Your task to perform on an android device: Search for the best burger restaurants on Maps Image 0: 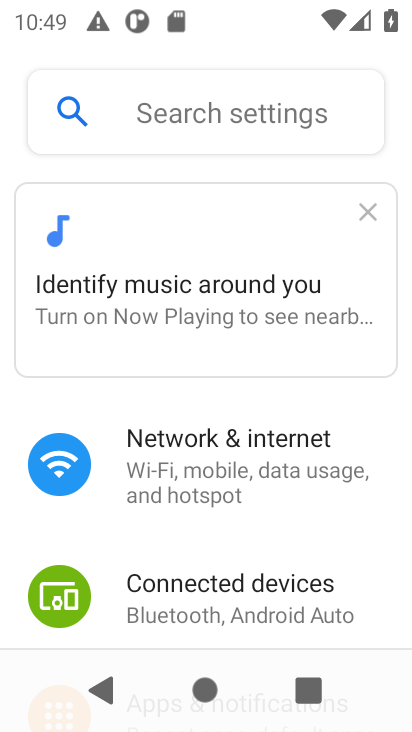
Step 0: press home button
Your task to perform on an android device: Search for the best burger restaurants on Maps Image 1: 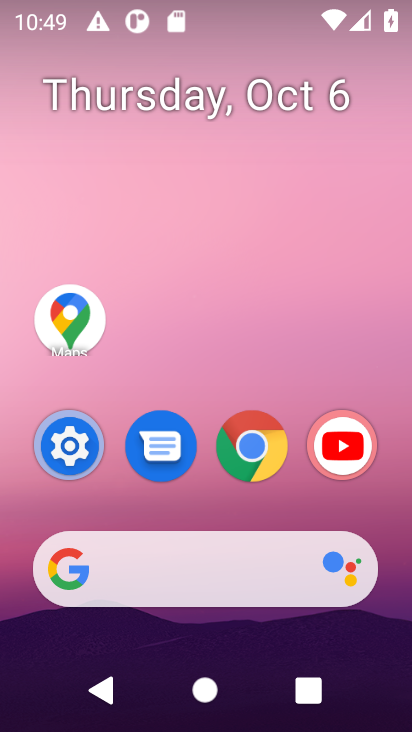
Step 1: drag from (139, 623) to (154, 259)
Your task to perform on an android device: Search for the best burger restaurants on Maps Image 2: 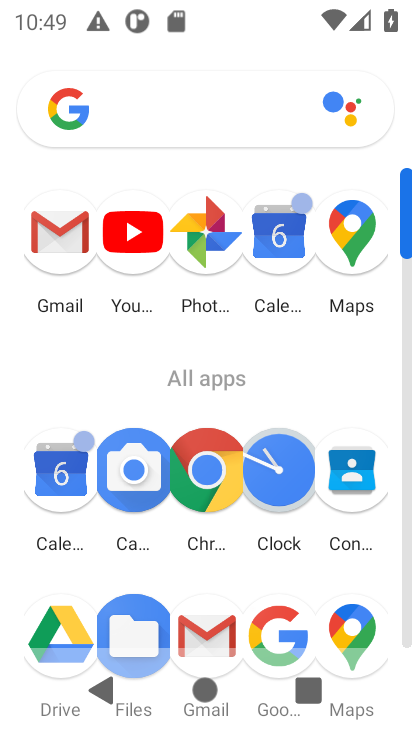
Step 2: drag from (205, 610) to (265, 228)
Your task to perform on an android device: Search for the best burger restaurants on Maps Image 3: 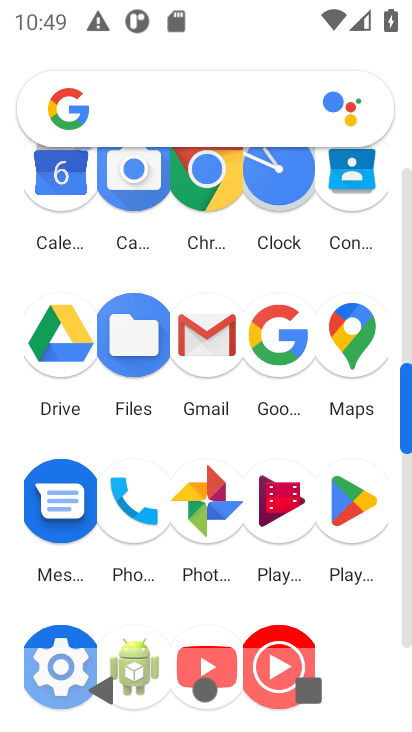
Step 3: click (288, 312)
Your task to perform on an android device: Search for the best burger restaurants on Maps Image 4: 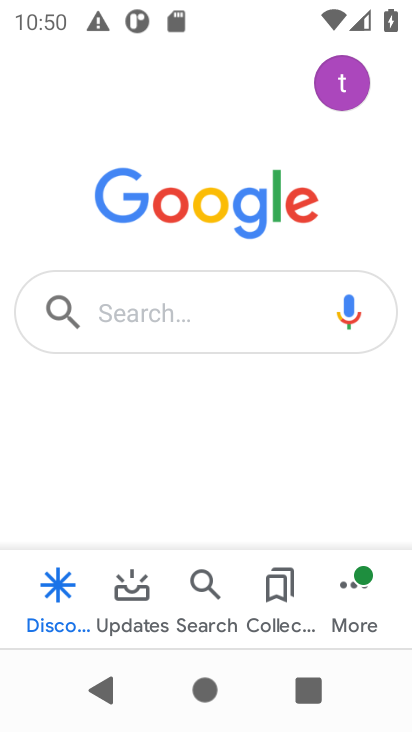
Step 4: press home button
Your task to perform on an android device: Search for the best burger restaurants on Maps Image 5: 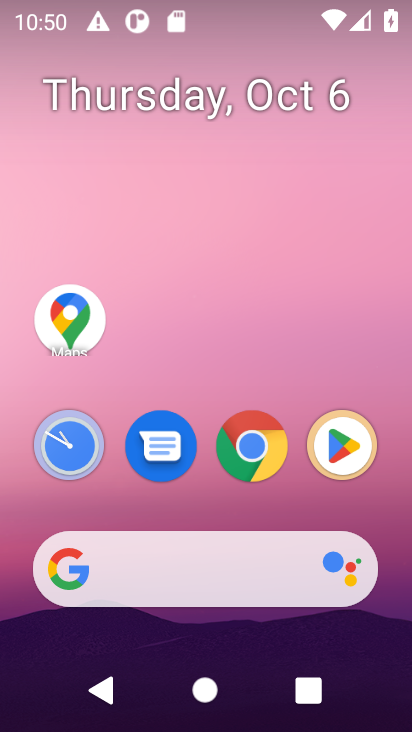
Step 5: drag from (235, 513) to (236, 412)
Your task to perform on an android device: Search for the best burger restaurants on Maps Image 6: 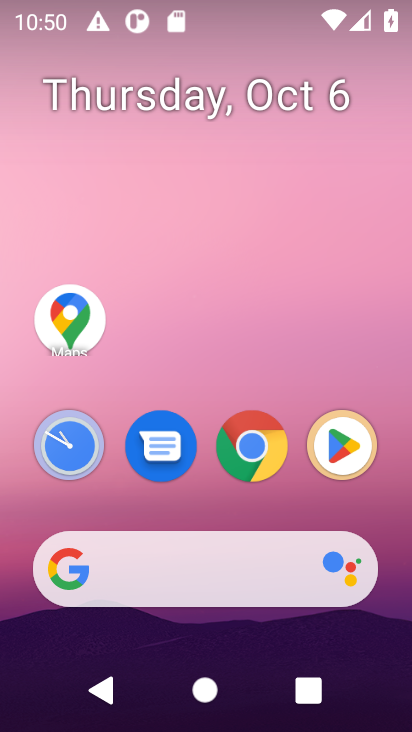
Step 6: click (52, 326)
Your task to perform on an android device: Search for the best burger restaurants on Maps Image 7: 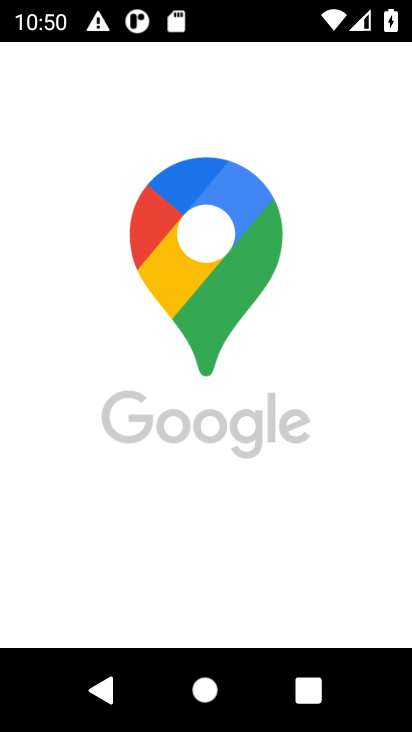
Step 7: click (217, 548)
Your task to perform on an android device: Search for the best burger restaurants on Maps Image 8: 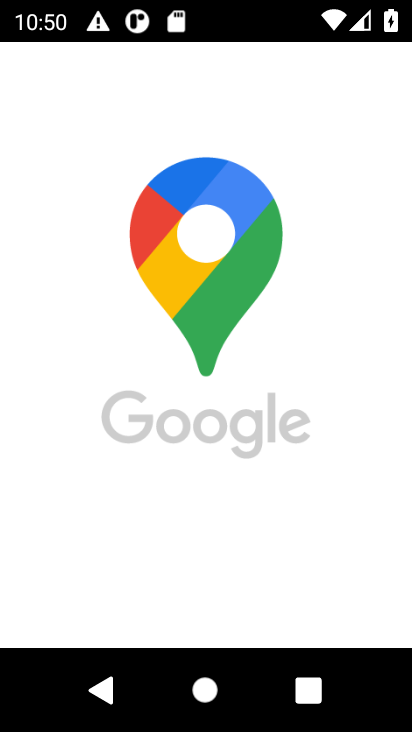
Step 8: click (221, 532)
Your task to perform on an android device: Search for the best burger restaurants on Maps Image 9: 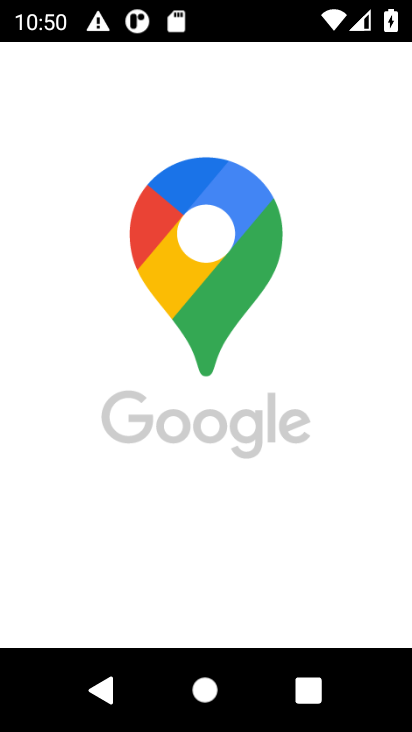
Step 9: click (271, 495)
Your task to perform on an android device: Search for the best burger restaurants on Maps Image 10: 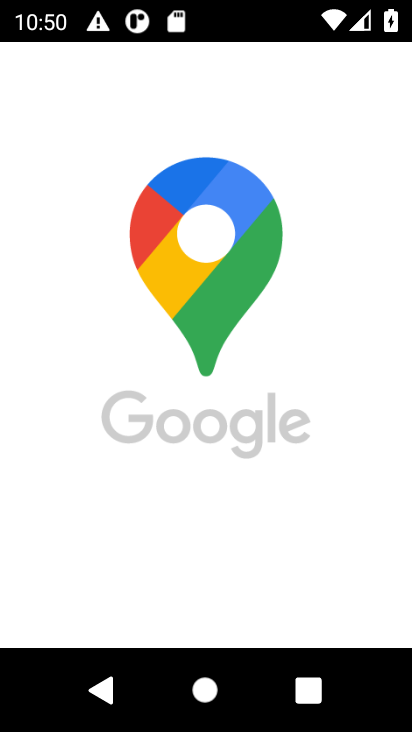
Step 10: click (287, 491)
Your task to perform on an android device: Search for the best burger restaurants on Maps Image 11: 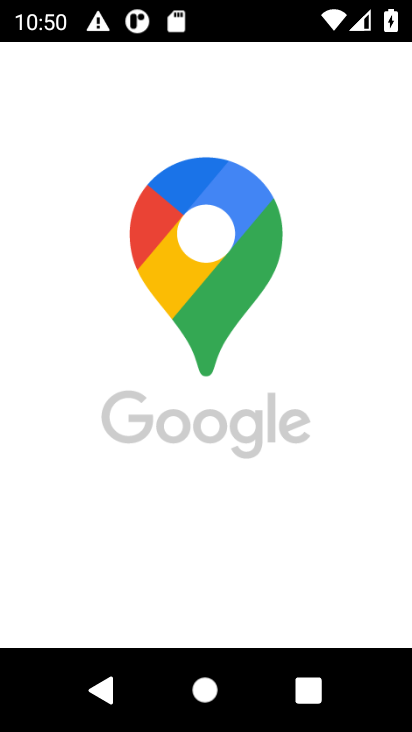
Step 11: click (287, 491)
Your task to perform on an android device: Search for the best burger restaurants on Maps Image 12: 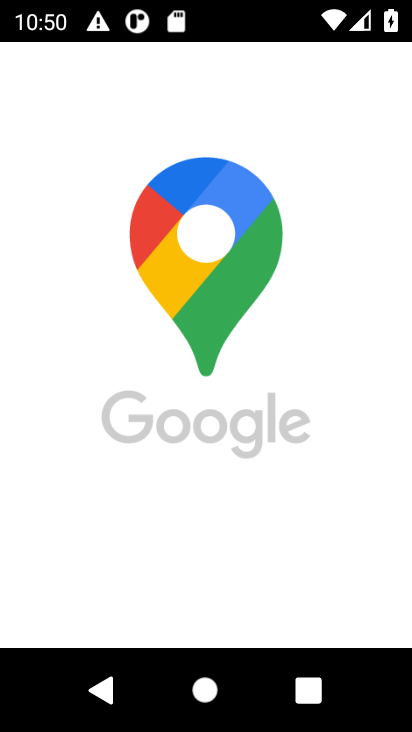
Step 12: click (314, 412)
Your task to perform on an android device: Search for the best burger restaurants on Maps Image 13: 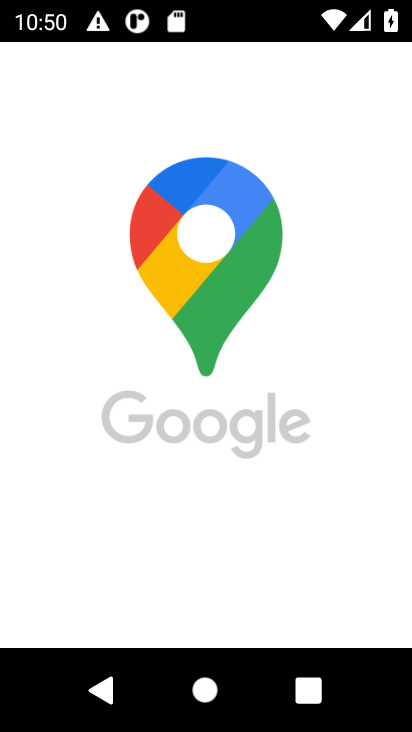
Step 13: task complete